Your task to perform on an android device: change the clock display to digital Image 0: 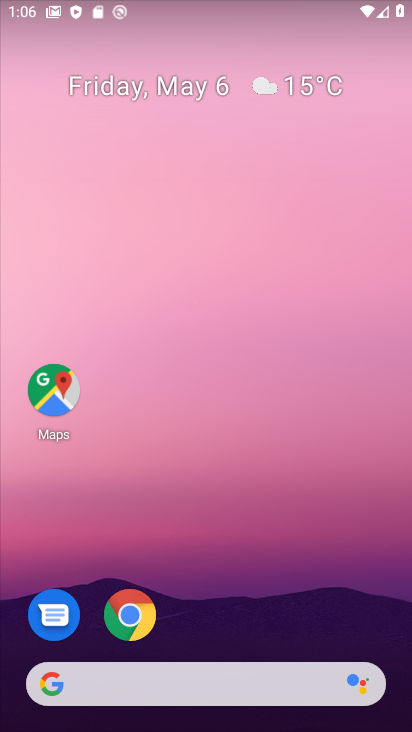
Step 0: drag from (270, 592) to (258, 40)
Your task to perform on an android device: change the clock display to digital Image 1: 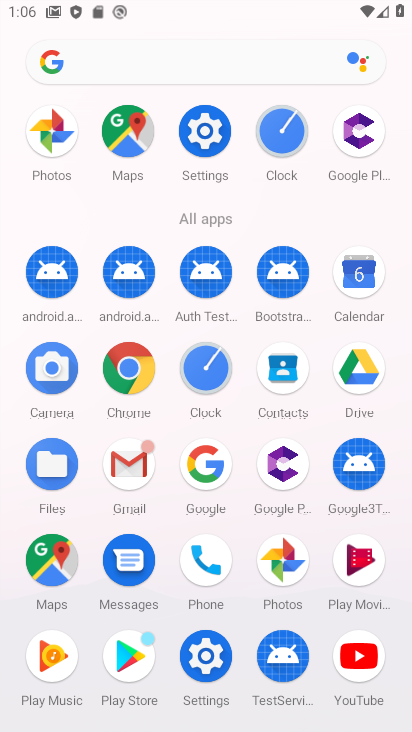
Step 1: click (280, 132)
Your task to perform on an android device: change the clock display to digital Image 2: 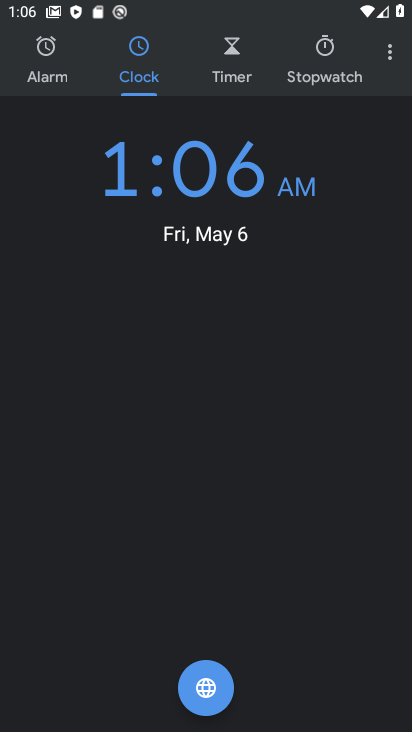
Step 2: click (386, 52)
Your task to perform on an android device: change the clock display to digital Image 3: 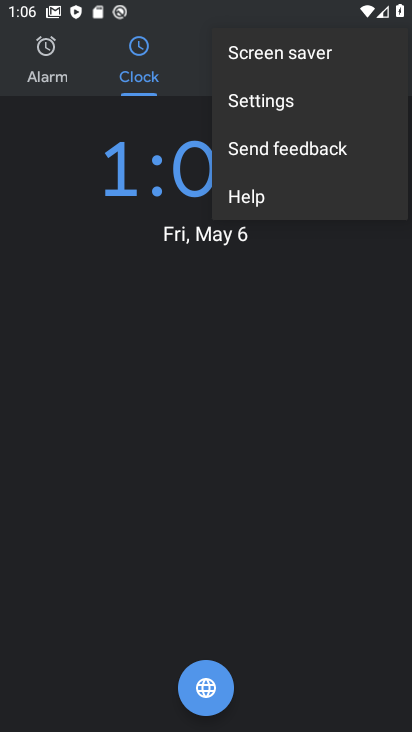
Step 3: click (330, 101)
Your task to perform on an android device: change the clock display to digital Image 4: 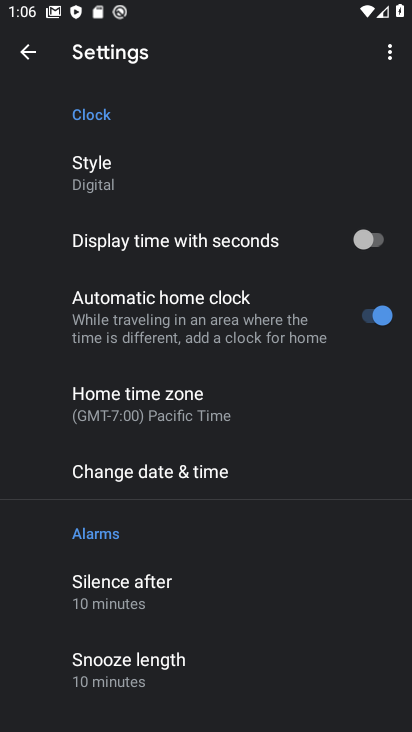
Step 4: task complete